Your task to perform on an android device: clear all cookies in the chrome app Image 0: 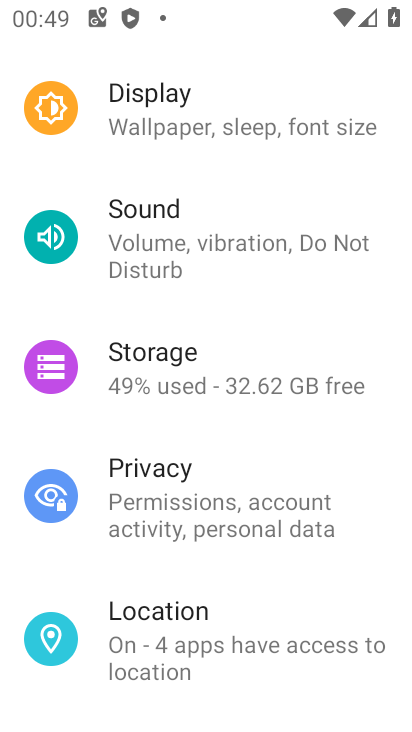
Step 0: press home button
Your task to perform on an android device: clear all cookies in the chrome app Image 1: 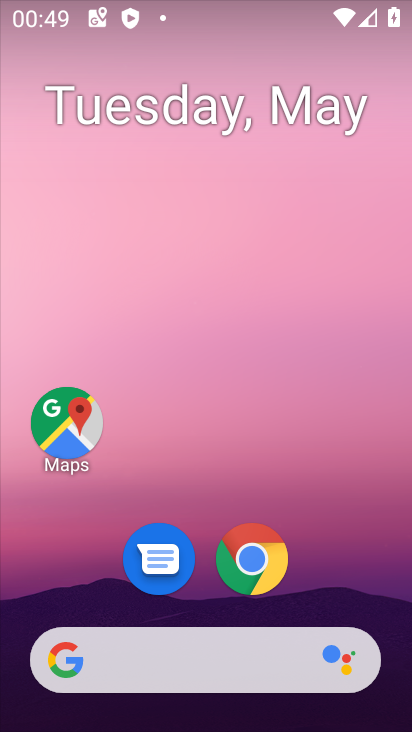
Step 1: click (261, 563)
Your task to perform on an android device: clear all cookies in the chrome app Image 2: 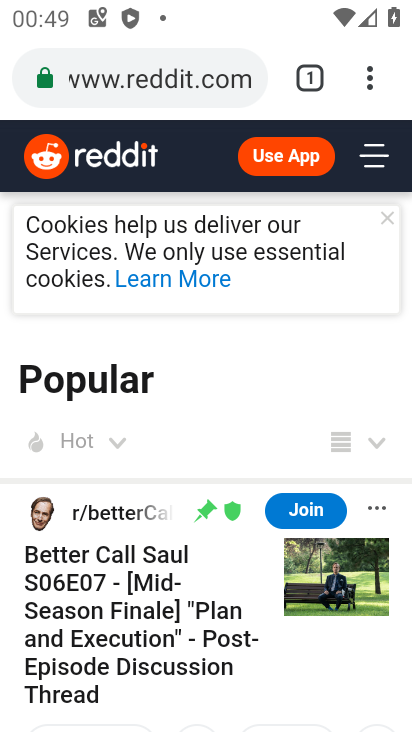
Step 2: click (366, 86)
Your task to perform on an android device: clear all cookies in the chrome app Image 3: 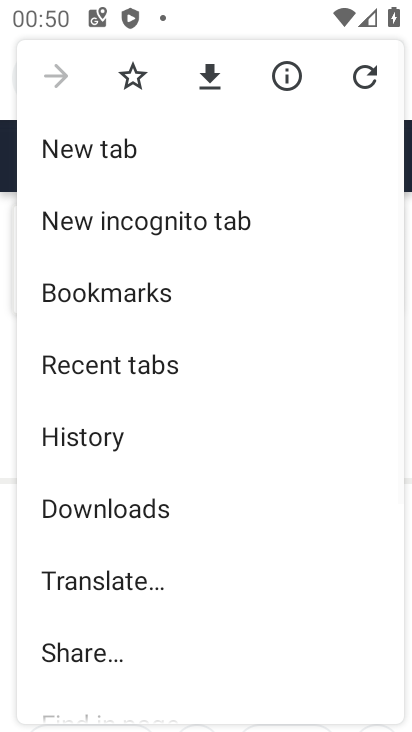
Step 3: drag from (188, 545) to (127, 142)
Your task to perform on an android device: clear all cookies in the chrome app Image 4: 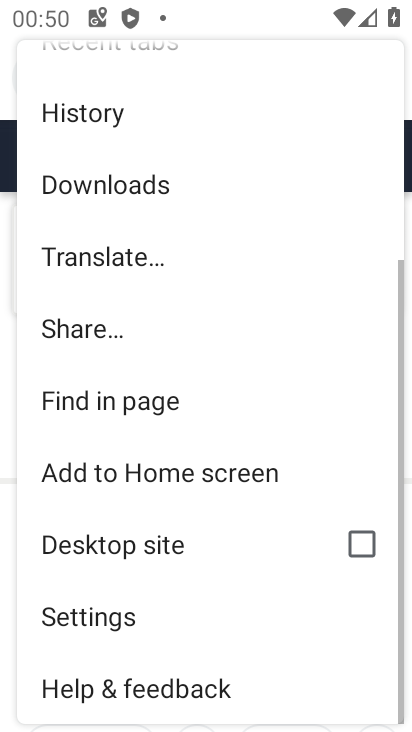
Step 4: drag from (147, 560) to (141, 79)
Your task to perform on an android device: clear all cookies in the chrome app Image 5: 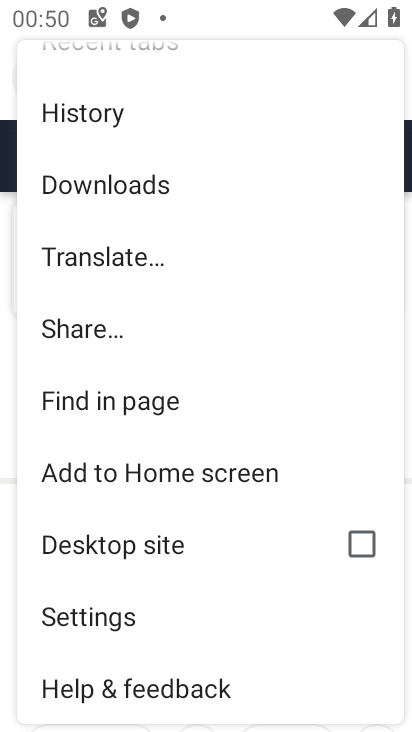
Step 5: click (138, 617)
Your task to perform on an android device: clear all cookies in the chrome app Image 6: 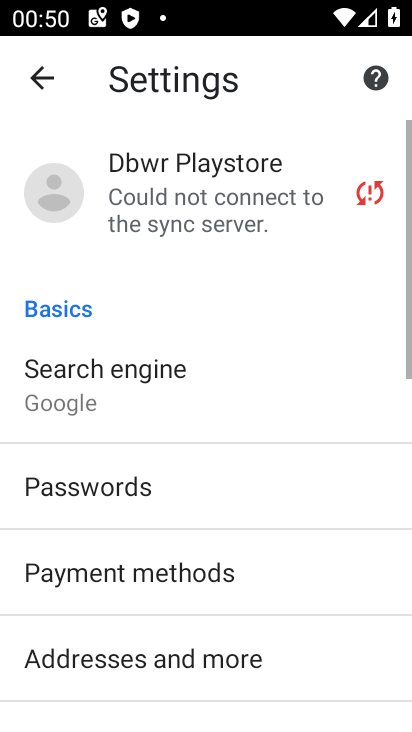
Step 6: drag from (134, 609) to (121, 309)
Your task to perform on an android device: clear all cookies in the chrome app Image 7: 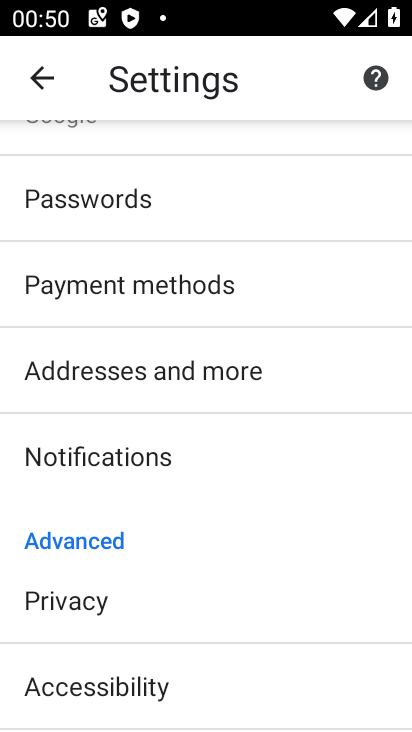
Step 7: drag from (112, 651) to (106, 339)
Your task to perform on an android device: clear all cookies in the chrome app Image 8: 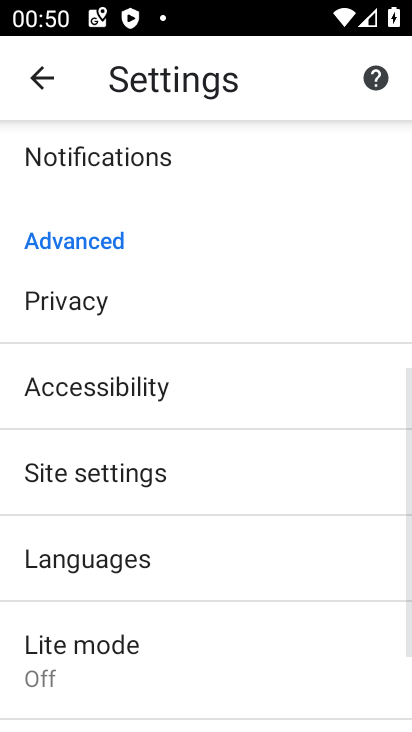
Step 8: click (109, 471)
Your task to perform on an android device: clear all cookies in the chrome app Image 9: 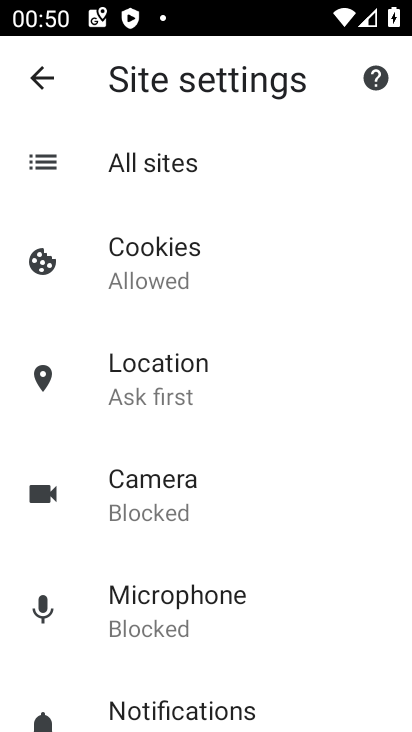
Step 9: click (193, 273)
Your task to perform on an android device: clear all cookies in the chrome app Image 10: 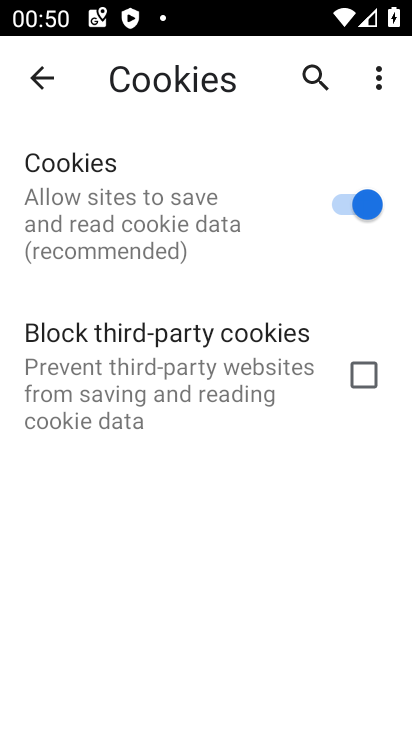
Step 10: click (376, 75)
Your task to perform on an android device: clear all cookies in the chrome app Image 11: 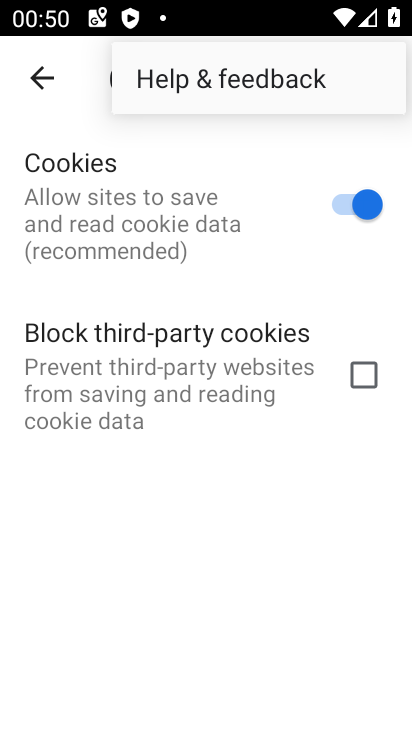
Step 11: click (162, 237)
Your task to perform on an android device: clear all cookies in the chrome app Image 12: 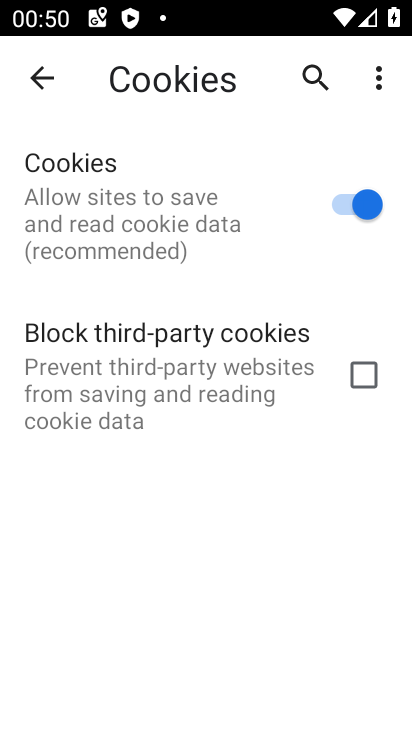
Step 12: task complete